Your task to perform on an android device: turn off javascript in the chrome app Image 0: 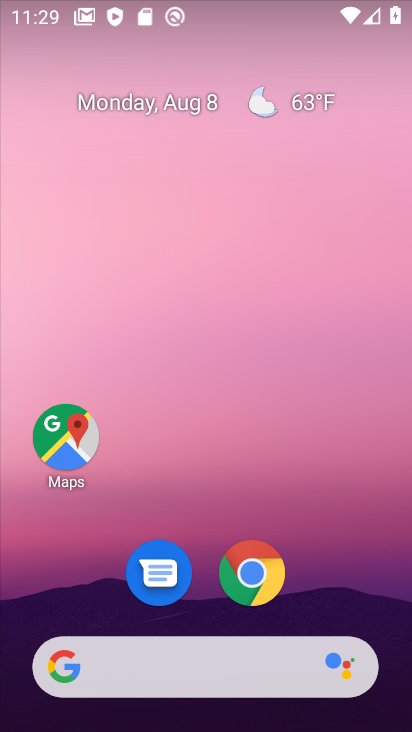
Step 0: drag from (214, 431) to (214, 157)
Your task to perform on an android device: turn off javascript in the chrome app Image 1: 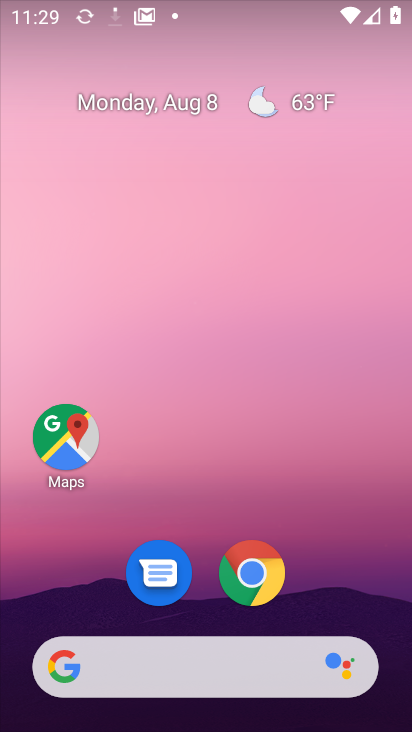
Step 1: drag from (180, 635) to (204, 104)
Your task to perform on an android device: turn off javascript in the chrome app Image 2: 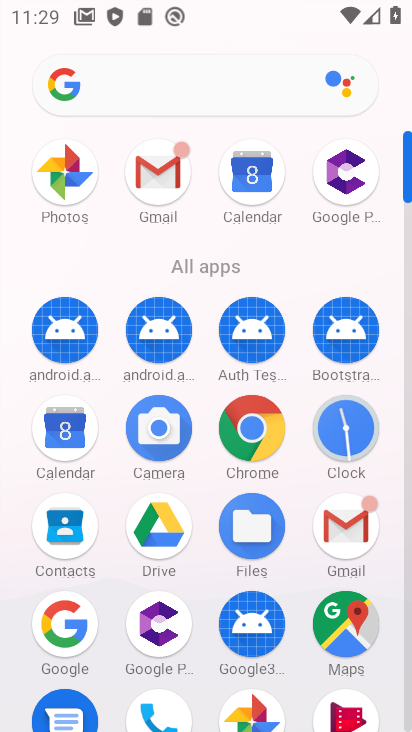
Step 2: click (251, 422)
Your task to perform on an android device: turn off javascript in the chrome app Image 3: 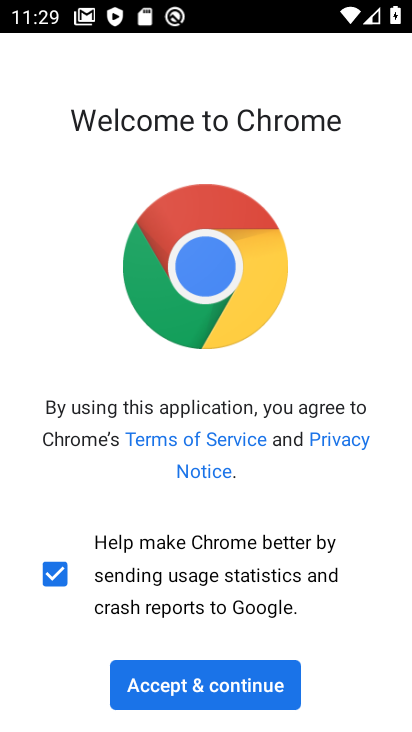
Step 3: drag from (208, 689) to (280, 689)
Your task to perform on an android device: turn off javascript in the chrome app Image 4: 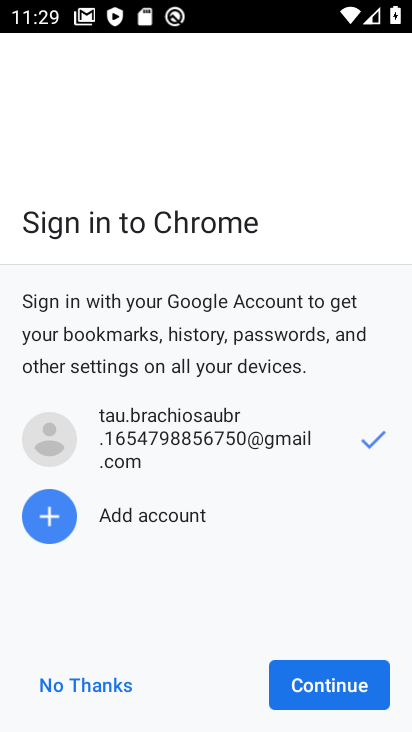
Step 4: click (324, 688)
Your task to perform on an android device: turn off javascript in the chrome app Image 5: 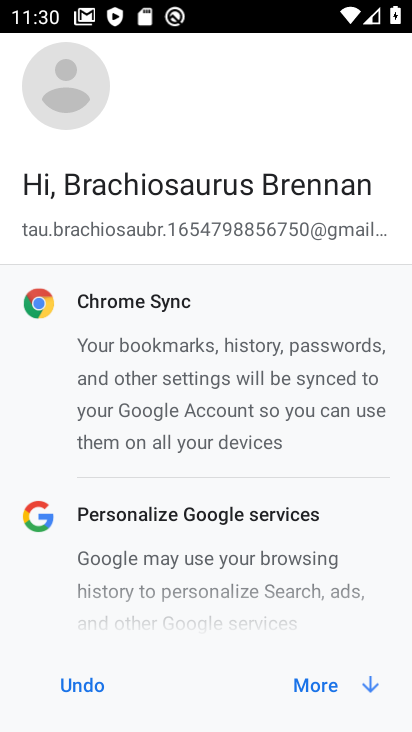
Step 5: click (310, 684)
Your task to perform on an android device: turn off javascript in the chrome app Image 6: 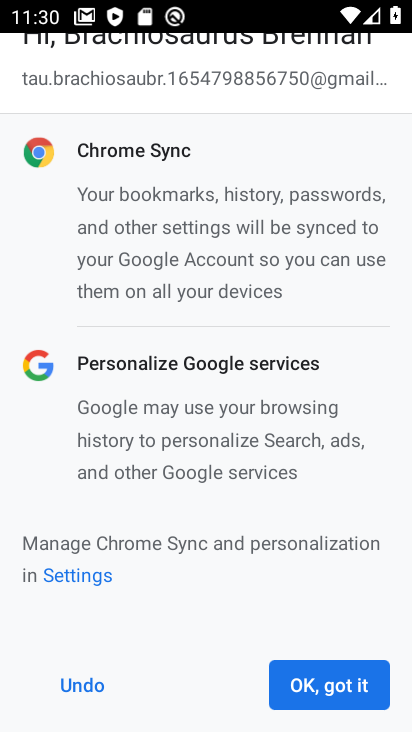
Step 6: click (317, 692)
Your task to perform on an android device: turn off javascript in the chrome app Image 7: 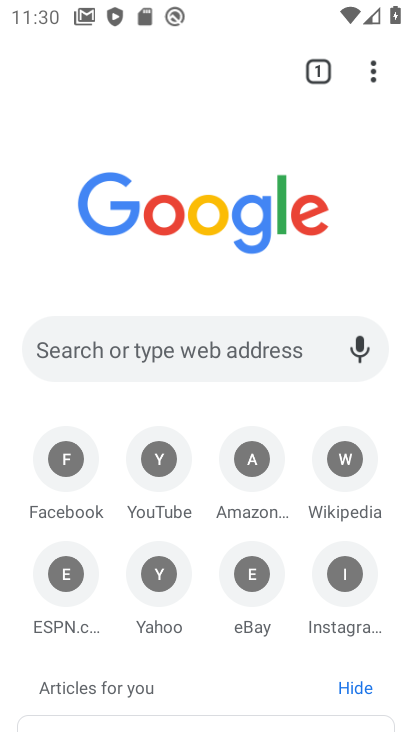
Step 7: click (368, 75)
Your task to perform on an android device: turn off javascript in the chrome app Image 8: 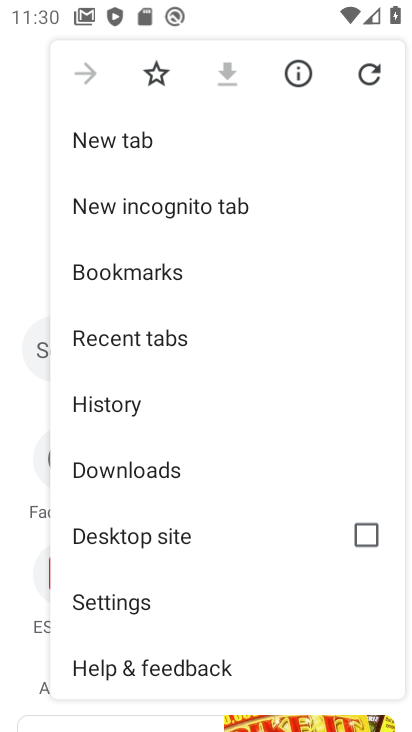
Step 8: click (112, 607)
Your task to perform on an android device: turn off javascript in the chrome app Image 9: 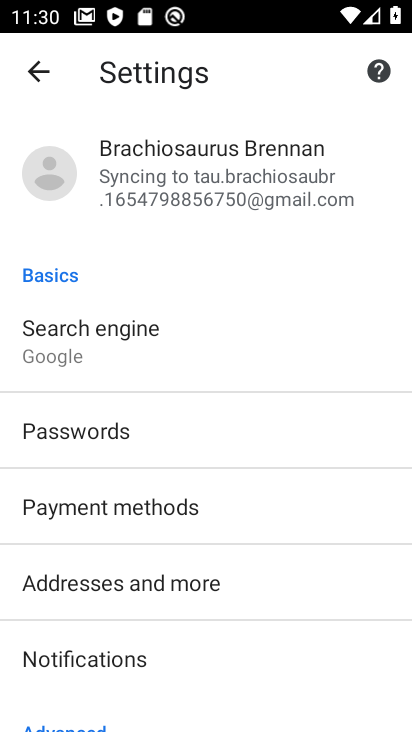
Step 9: drag from (117, 666) to (119, 257)
Your task to perform on an android device: turn off javascript in the chrome app Image 10: 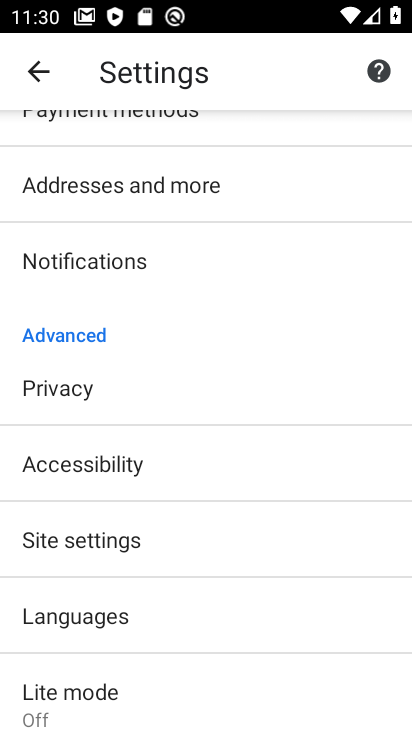
Step 10: click (86, 552)
Your task to perform on an android device: turn off javascript in the chrome app Image 11: 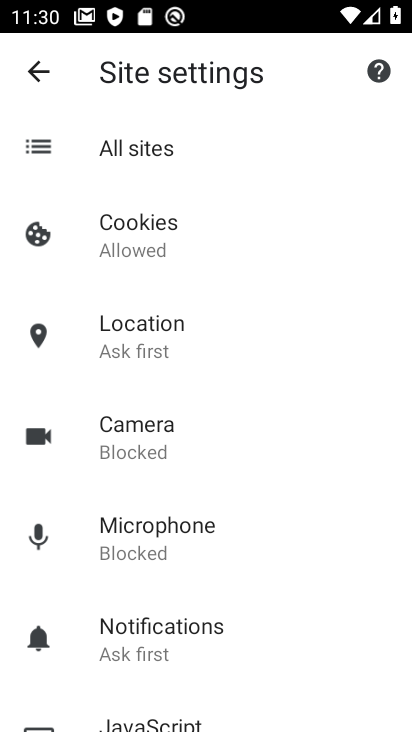
Step 11: drag from (146, 662) to (146, 278)
Your task to perform on an android device: turn off javascript in the chrome app Image 12: 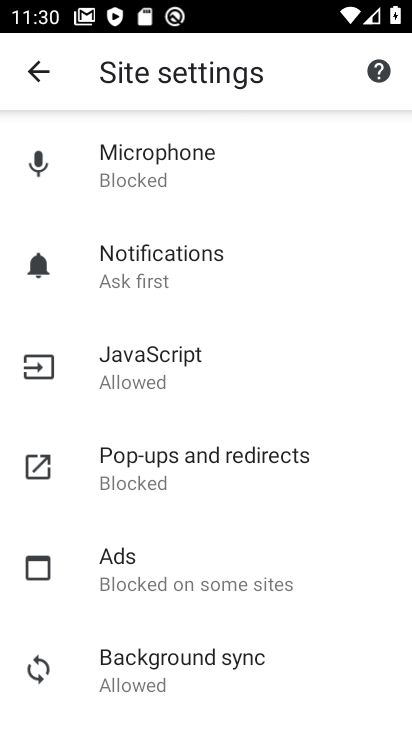
Step 12: click (158, 371)
Your task to perform on an android device: turn off javascript in the chrome app Image 13: 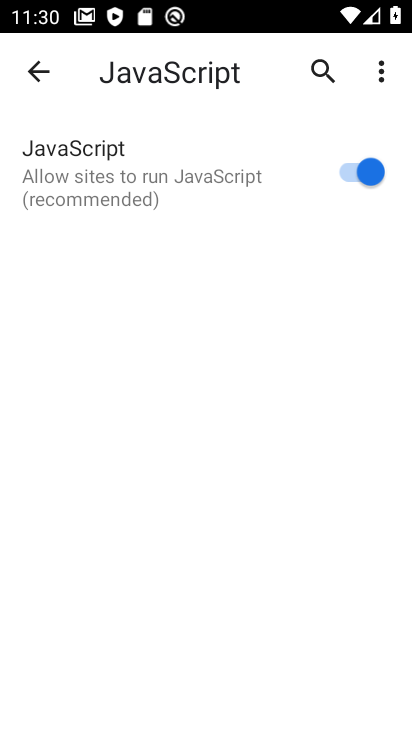
Step 13: click (344, 171)
Your task to perform on an android device: turn off javascript in the chrome app Image 14: 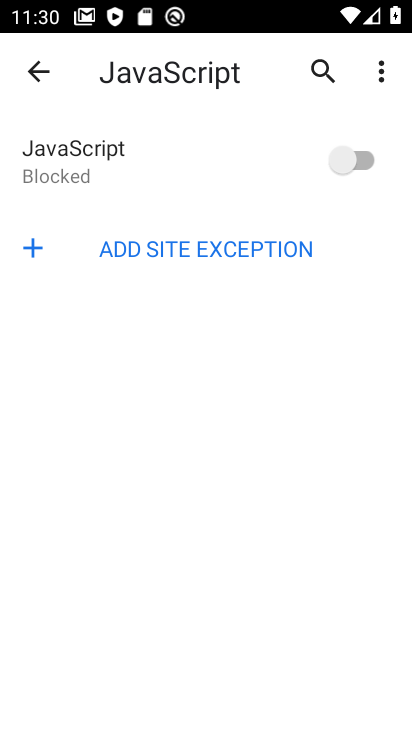
Step 14: task complete